Your task to perform on an android device: Go to settings Image 0: 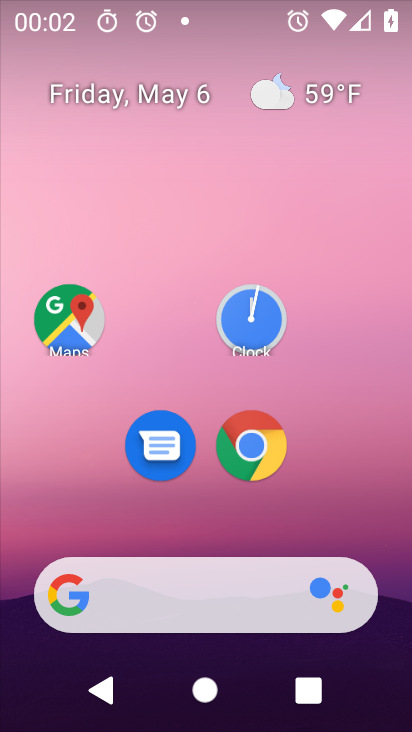
Step 0: drag from (227, 569) to (269, 39)
Your task to perform on an android device: Go to settings Image 1: 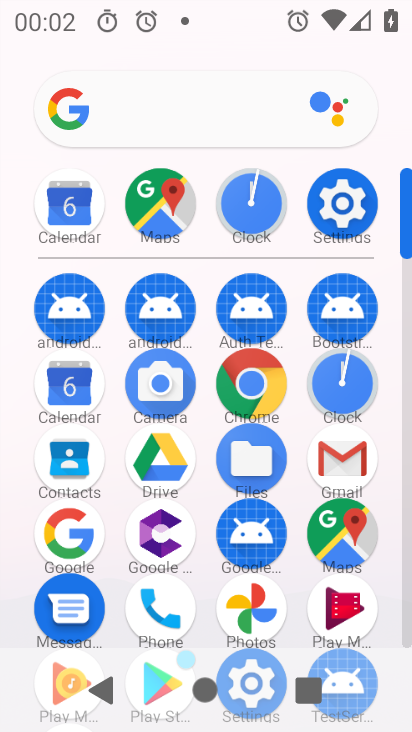
Step 1: click (335, 194)
Your task to perform on an android device: Go to settings Image 2: 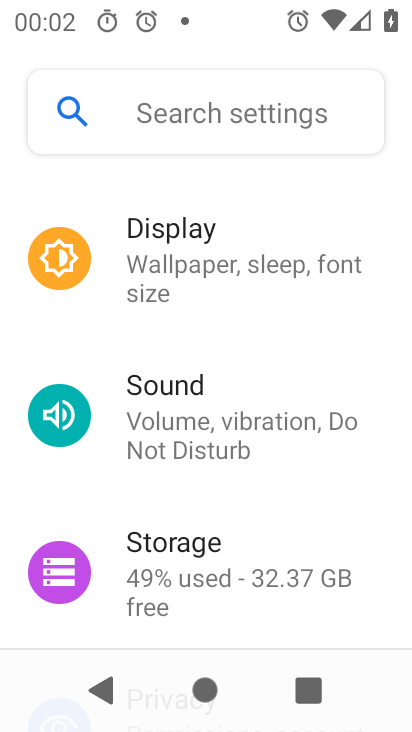
Step 2: task complete